Your task to perform on an android device: Open the Play Movies app and select the watchlist tab. Image 0: 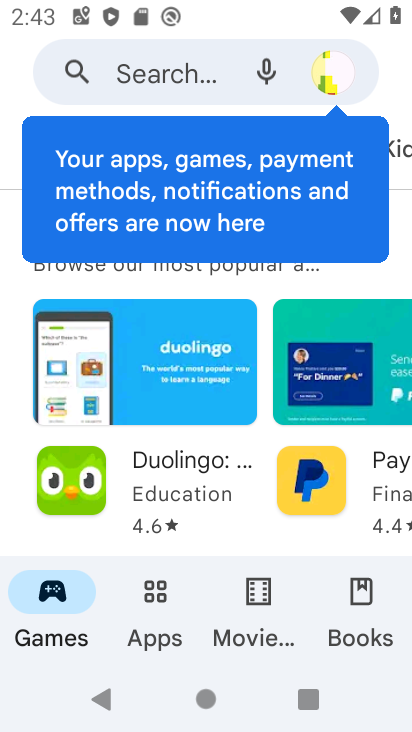
Step 0: press home button
Your task to perform on an android device: Open the Play Movies app and select the watchlist tab. Image 1: 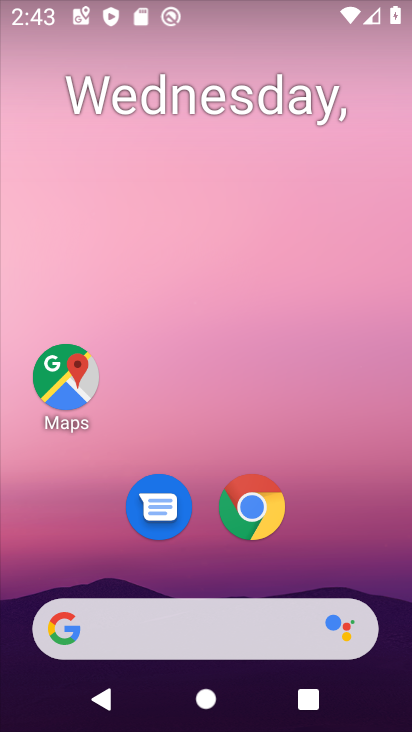
Step 1: drag from (303, 520) to (303, 151)
Your task to perform on an android device: Open the Play Movies app and select the watchlist tab. Image 2: 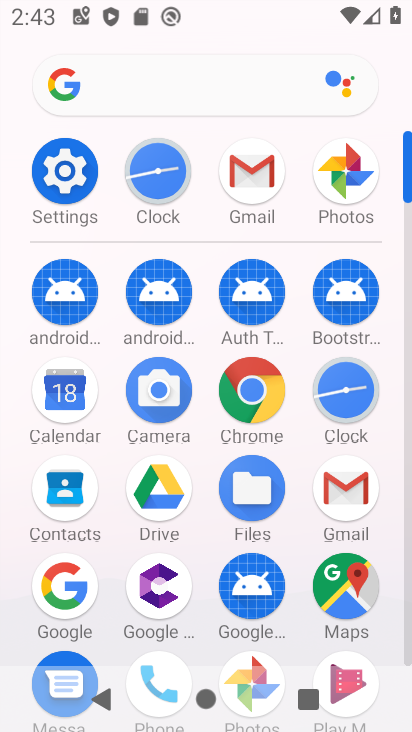
Step 2: drag from (389, 643) to (411, 370)
Your task to perform on an android device: Open the Play Movies app and select the watchlist tab. Image 3: 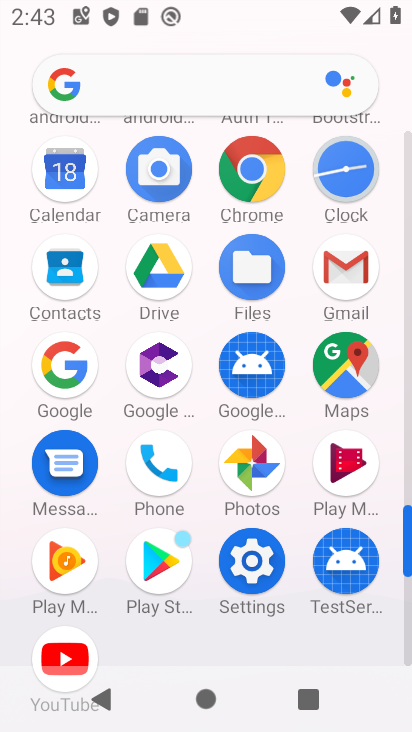
Step 3: click (357, 472)
Your task to perform on an android device: Open the Play Movies app and select the watchlist tab. Image 4: 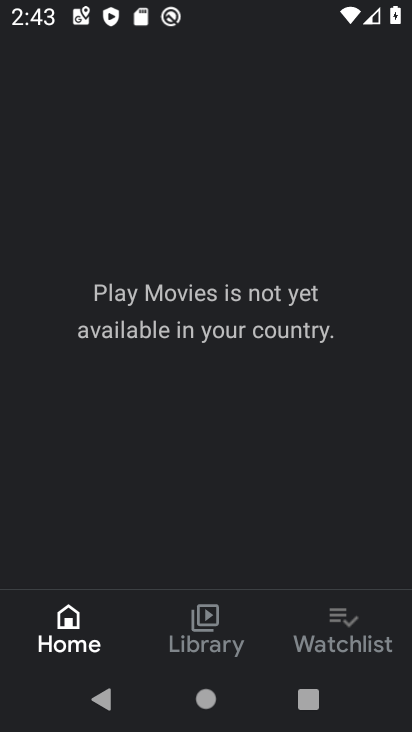
Step 4: click (353, 631)
Your task to perform on an android device: Open the Play Movies app and select the watchlist tab. Image 5: 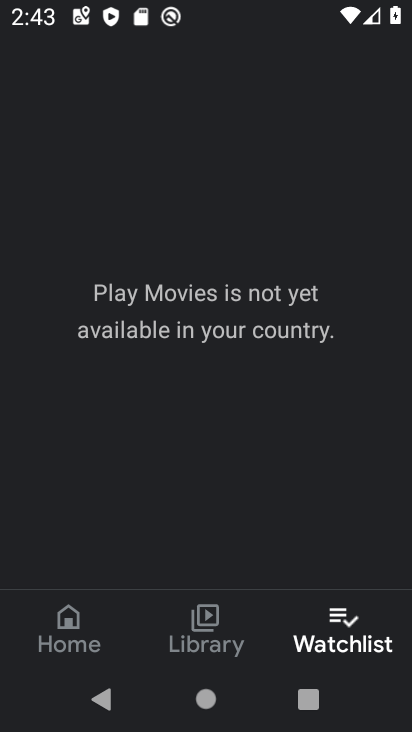
Step 5: task complete